Your task to perform on an android device: Go to notification settings Image 0: 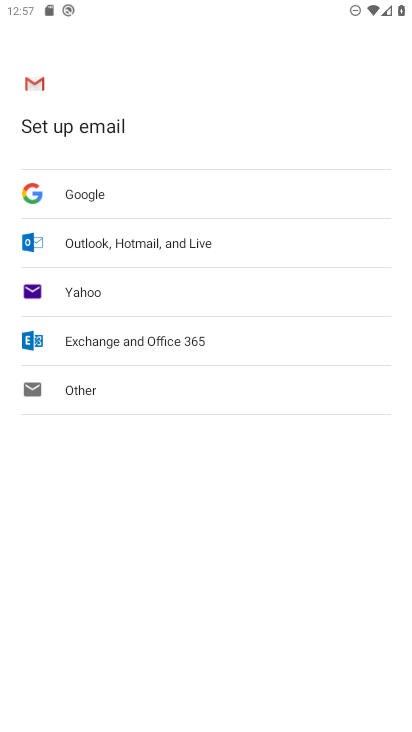
Step 0: press home button
Your task to perform on an android device: Go to notification settings Image 1: 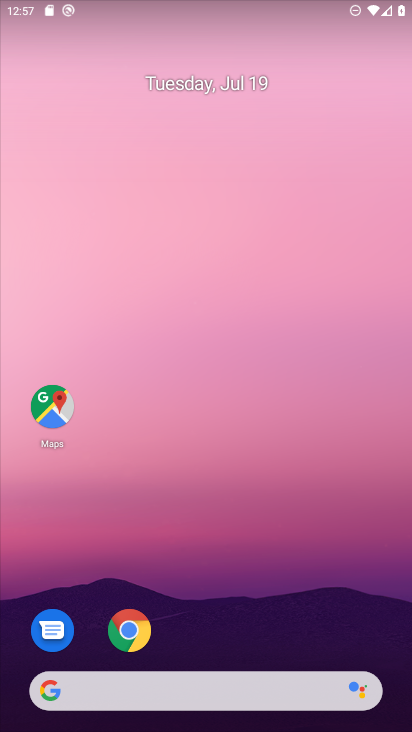
Step 1: drag from (202, 614) to (270, 154)
Your task to perform on an android device: Go to notification settings Image 2: 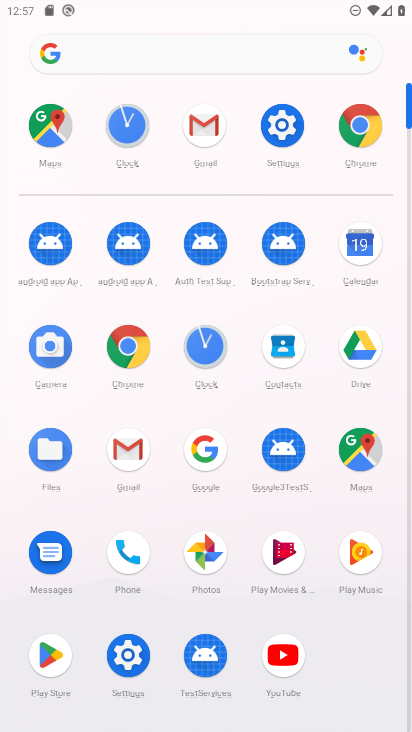
Step 2: click (282, 129)
Your task to perform on an android device: Go to notification settings Image 3: 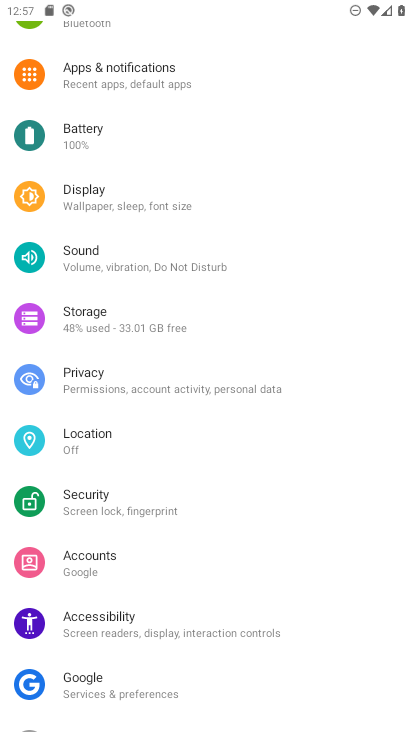
Step 3: click (134, 73)
Your task to perform on an android device: Go to notification settings Image 4: 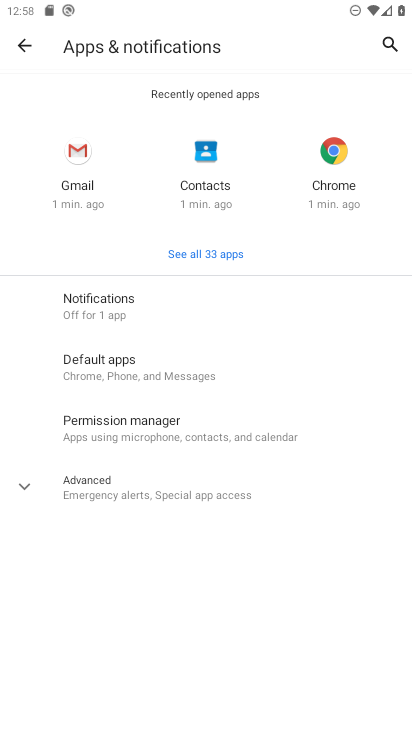
Step 4: click (111, 314)
Your task to perform on an android device: Go to notification settings Image 5: 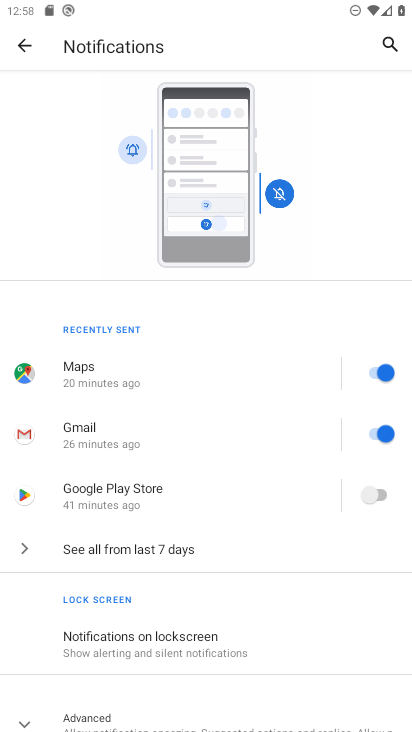
Step 5: task complete